Your task to perform on an android device: Search for Italian restaurants on Maps Image 0: 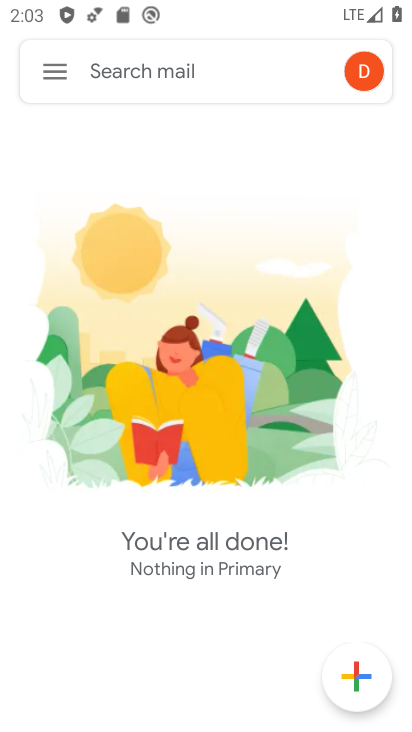
Step 0: press home button
Your task to perform on an android device: Search for Italian restaurants on Maps Image 1: 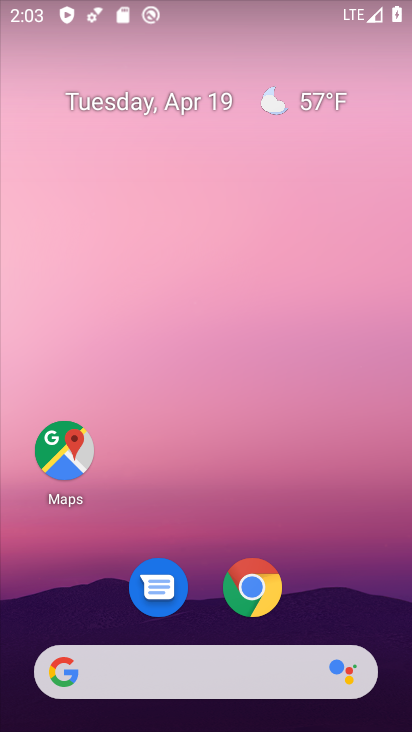
Step 1: drag from (244, 547) to (183, 194)
Your task to perform on an android device: Search for Italian restaurants on Maps Image 2: 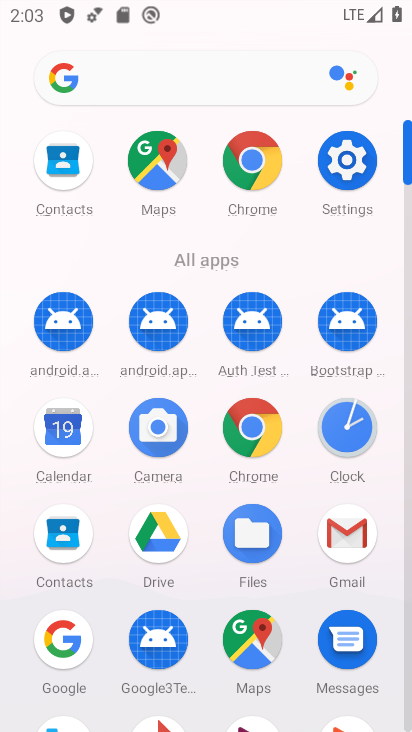
Step 2: click (165, 168)
Your task to perform on an android device: Search for Italian restaurants on Maps Image 3: 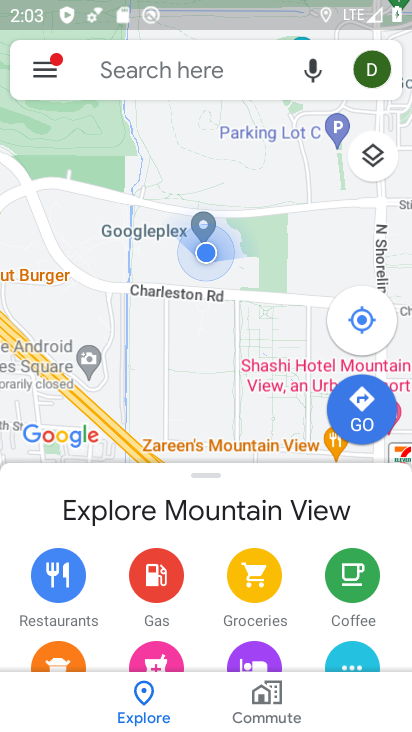
Step 3: click (126, 77)
Your task to perform on an android device: Search for Italian restaurants on Maps Image 4: 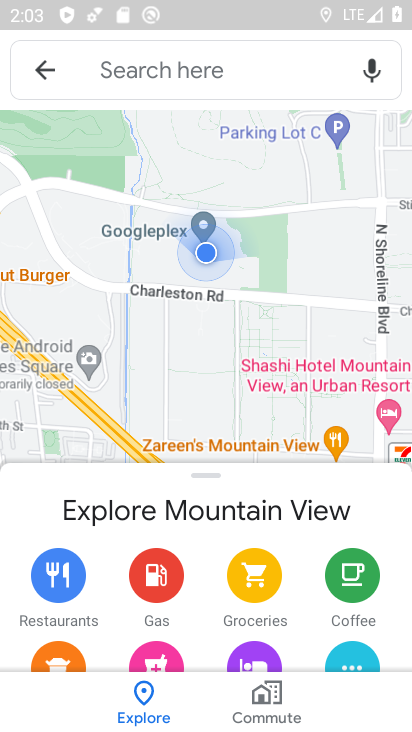
Step 4: click (108, 67)
Your task to perform on an android device: Search for Italian restaurants on Maps Image 5: 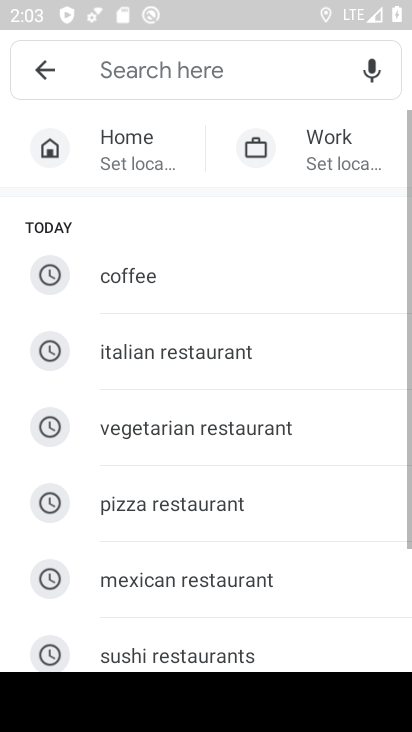
Step 5: click (108, 70)
Your task to perform on an android device: Search for Italian restaurants on Maps Image 6: 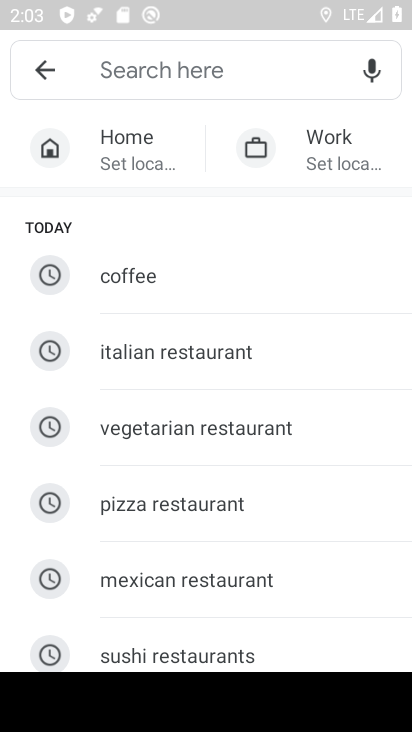
Step 6: click (160, 348)
Your task to perform on an android device: Search for Italian restaurants on Maps Image 7: 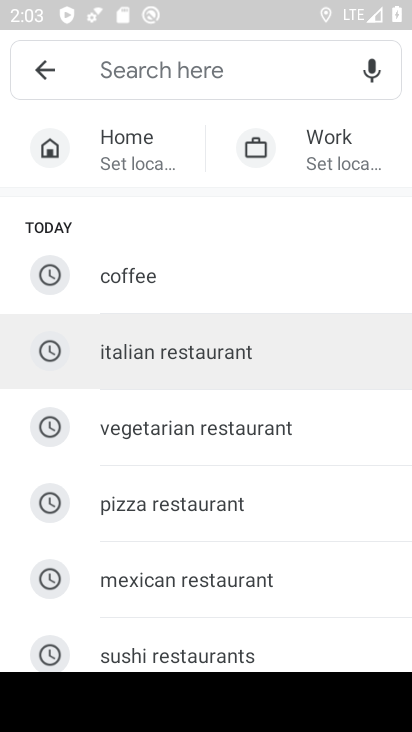
Step 7: click (160, 348)
Your task to perform on an android device: Search for Italian restaurants on Maps Image 8: 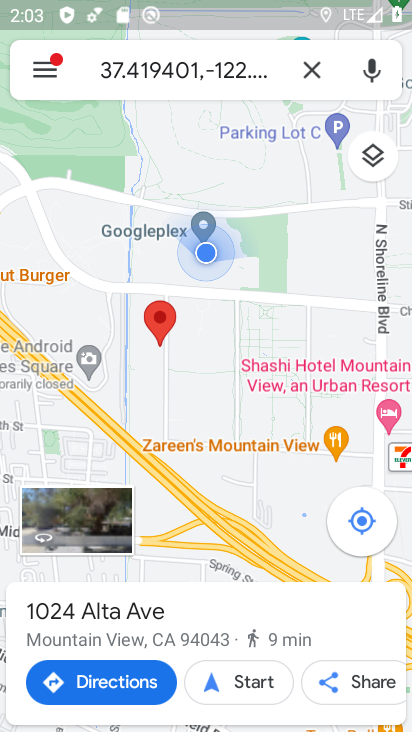
Step 8: click (307, 69)
Your task to perform on an android device: Search for Italian restaurants on Maps Image 9: 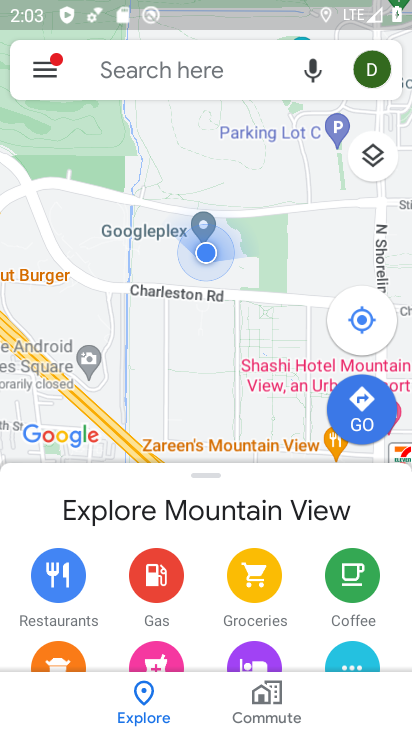
Step 9: click (115, 74)
Your task to perform on an android device: Search for Italian restaurants on Maps Image 10: 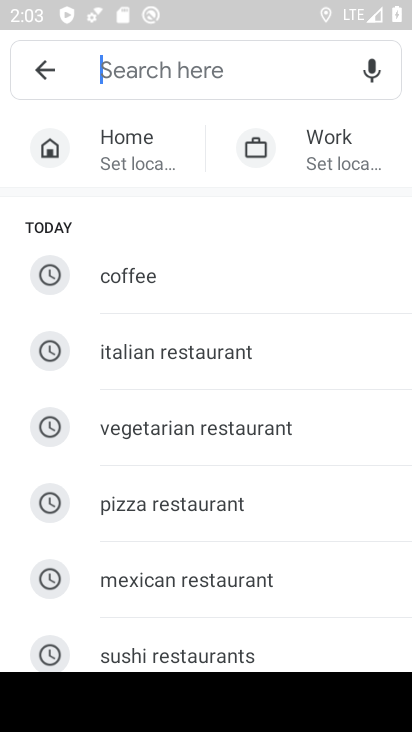
Step 10: click (107, 63)
Your task to perform on an android device: Search for Italian restaurants on Maps Image 11: 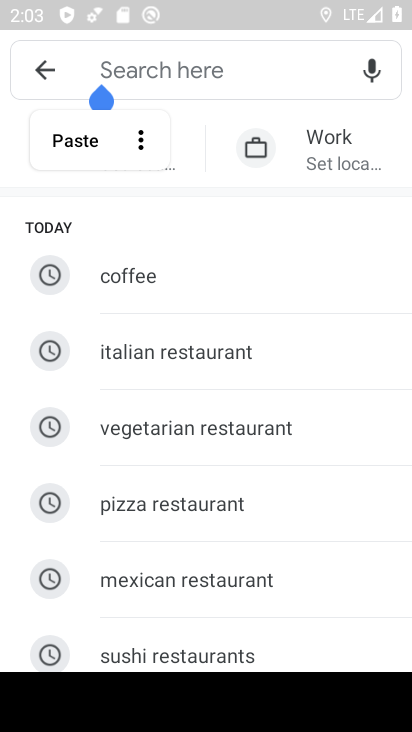
Step 11: click (103, 349)
Your task to perform on an android device: Search for Italian restaurants on Maps Image 12: 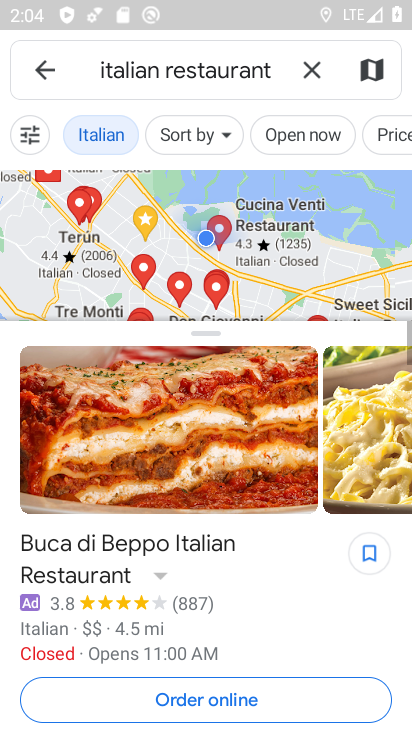
Step 12: task complete